Your task to perform on an android device: turn off location Image 0: 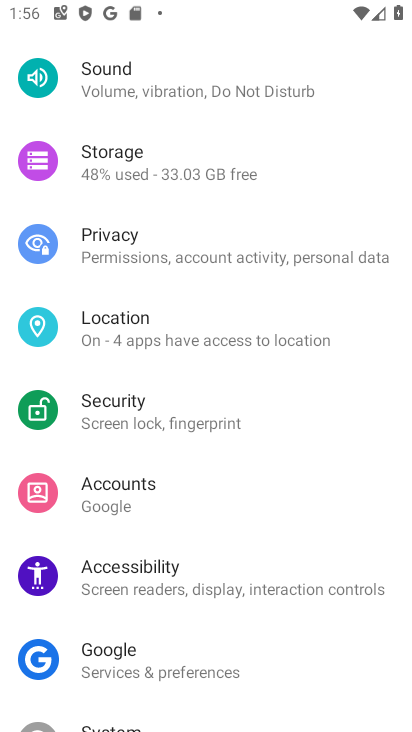
Step 0: press home button
Your task to perform on an android device: turn off location Image 1: 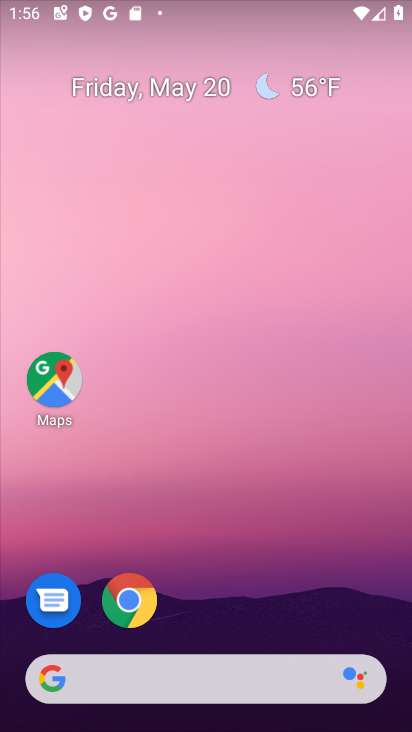
Step 1: drag from (306, 678) to (307, 449)
Your task to perform on an android device: turn off location Image 2: 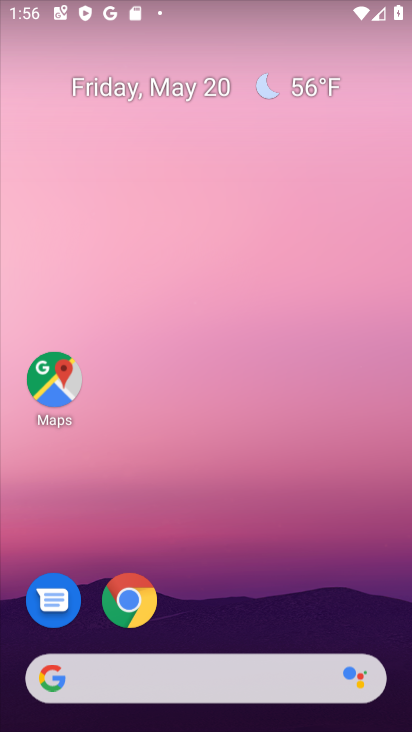
Step 2: click (328, 59)
Your task to perform on an android device: turn off location Image 3: 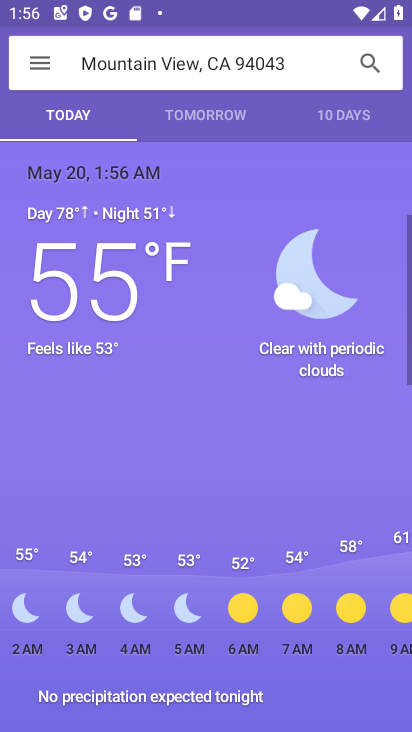
Step 3: press home button
Your task to perform on an android device: turn off location Image 4: 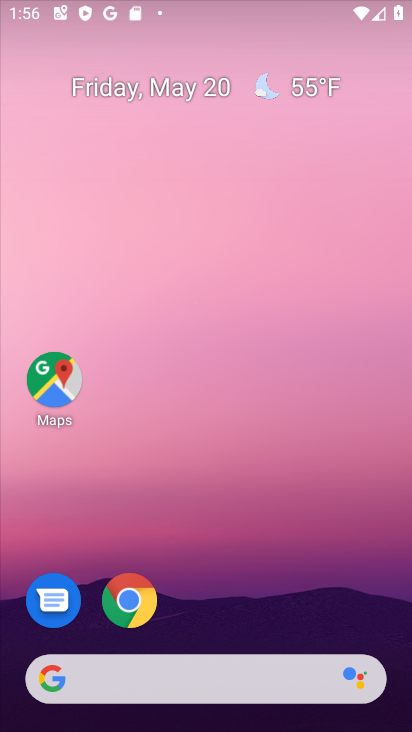
Step 4: drag from (218, 662) to (249, 23)
Your task to perform on an android device: turn off location Image 5: 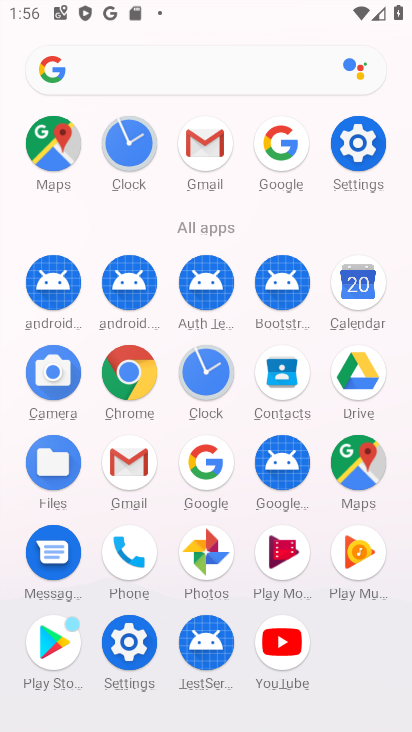
Step 5: click (358, 159)
Your task to perform on an android device: turn off location Image 6: 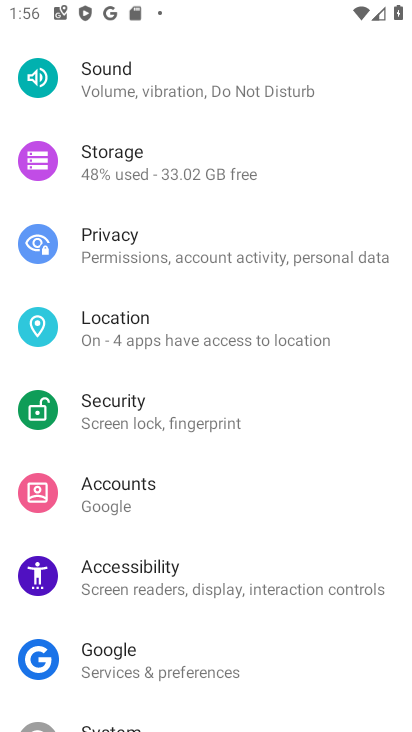
Step 6: drag from (216, 563) to (278, 170)
Your task to perform on an android device: turn off location Image 7: 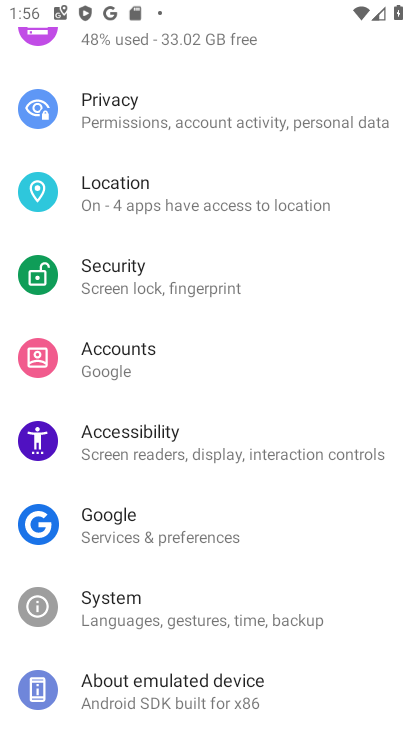
Step 7: drag from (153, 615) to (135, 650)
Your task to perform on an android device: turn off location Image 8: 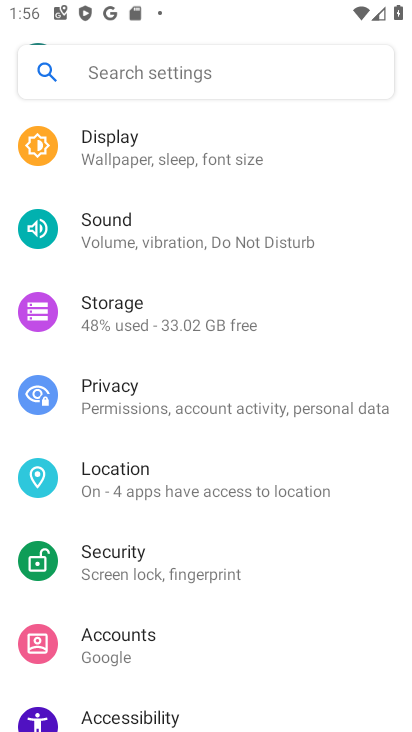
Step 8: click (199, 486)
Your task to perform on an android device: turn off location Image 9: 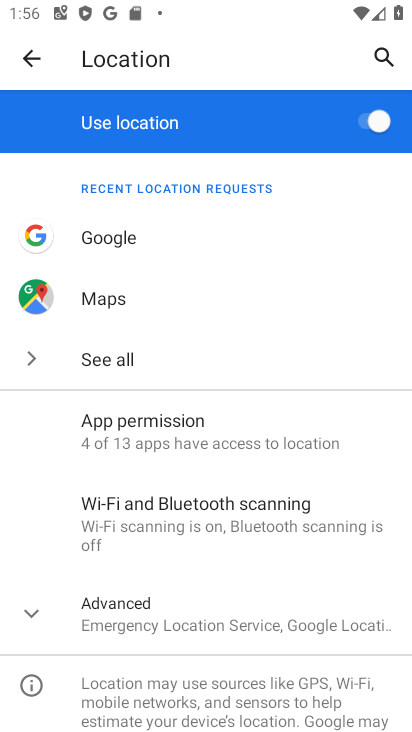
Step 9: click (362, 133)
Your task to perform on an android device: turn off location Image 10: 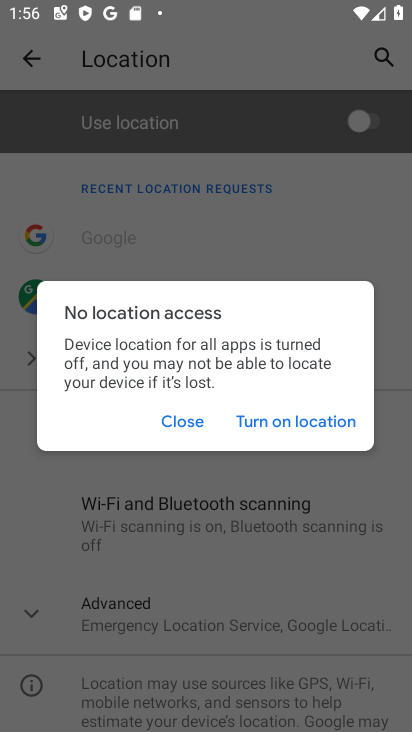
Step 10: task complete